Your task to perform on an android device: open a bookmark in the chrome app Image 0: 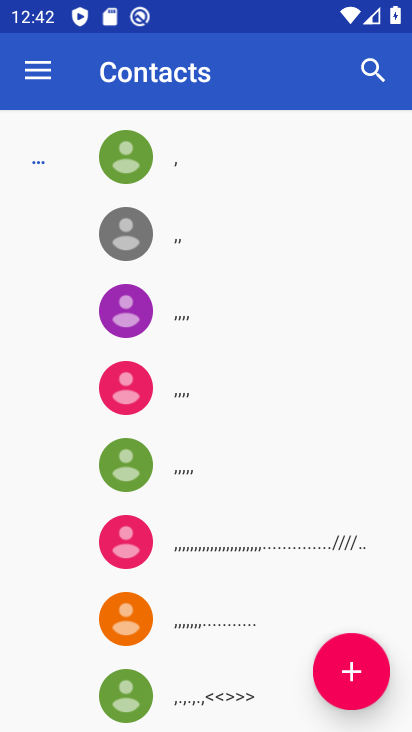
Step 0: press home button
Your task to perform on an android device: open a bookmark in the chrome app Image 1: 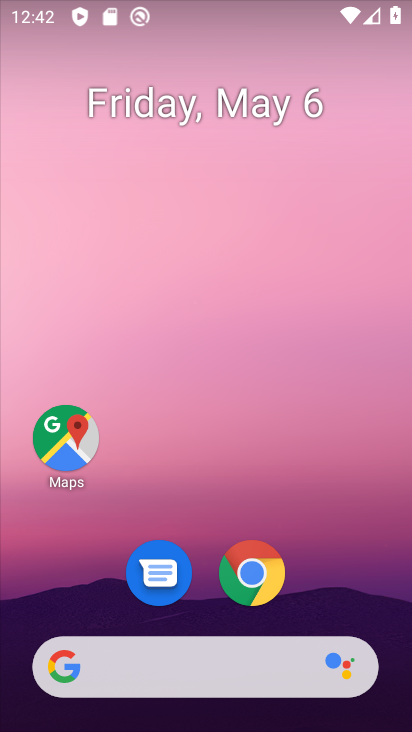
Step 1: drag from (201, 634) to (342, 183)
Your task to perform on an android device: open a bookmark in the chrome app Image 2: 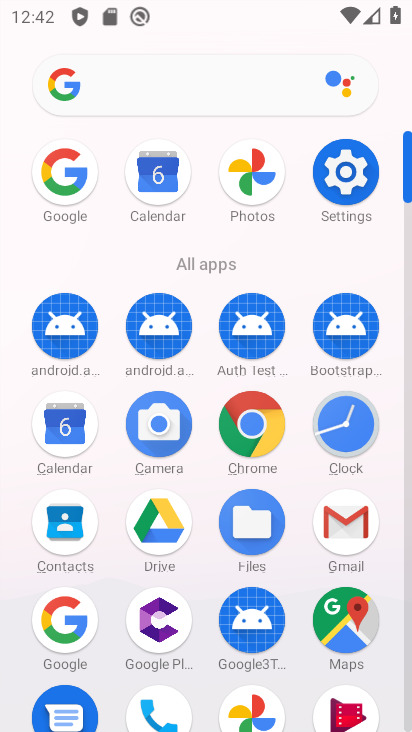
Step 2: click (266, 429)
Your task to perform on an android device: open a bookmark in the chrome app Image 3: 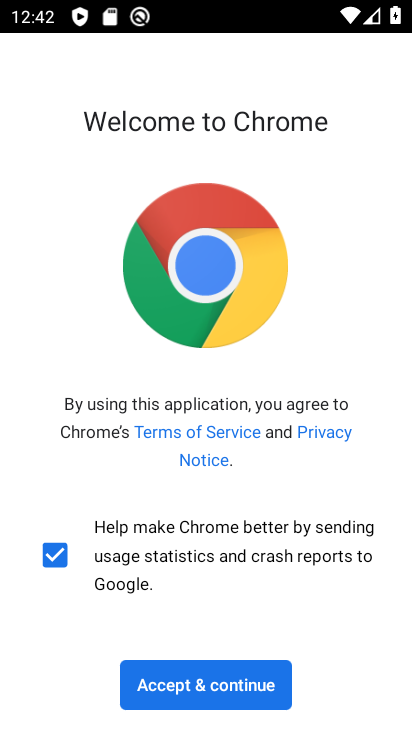
Step 3: click (217, 684)
Your task to perform on an android device: open a bookmark in the chrome app Image 4: 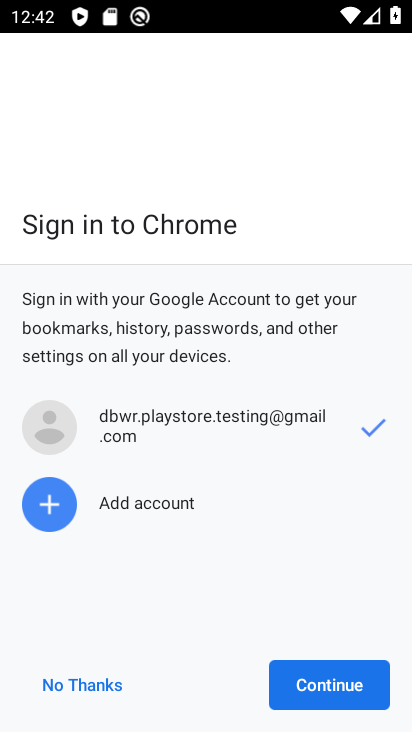
Step 4: click (353, 683)
Your task to perform on an android device: open a bookmark in the chrome app Image 5: 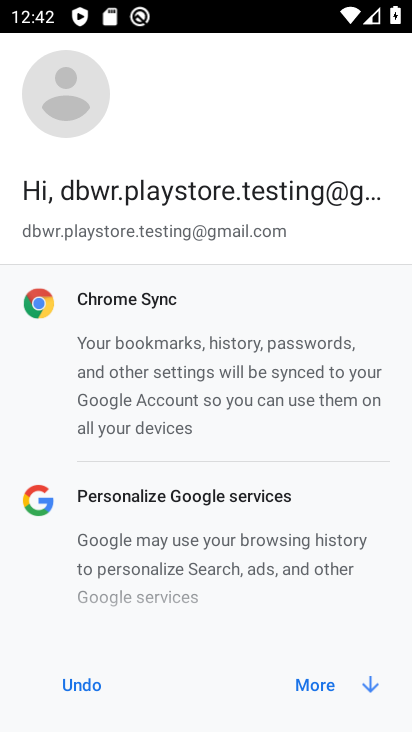
Step 5: click (300, 684)
Your task to perform on an android device: open a bookmark in the chrome app Image 6: 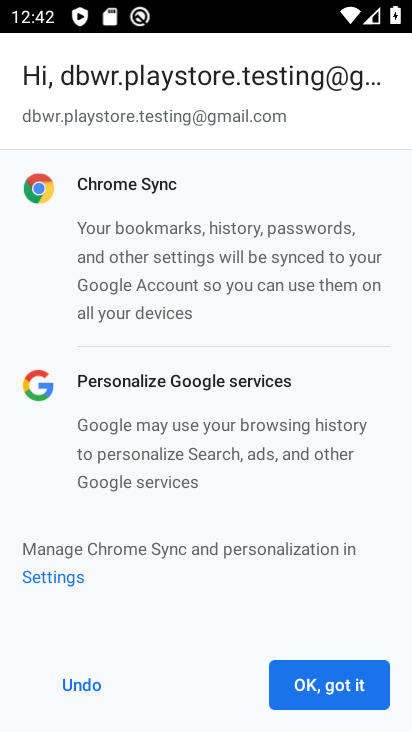
Step 6: click (318, 678)
Your task to perform on an android device: open a bookmark in the chrome app Image 7: 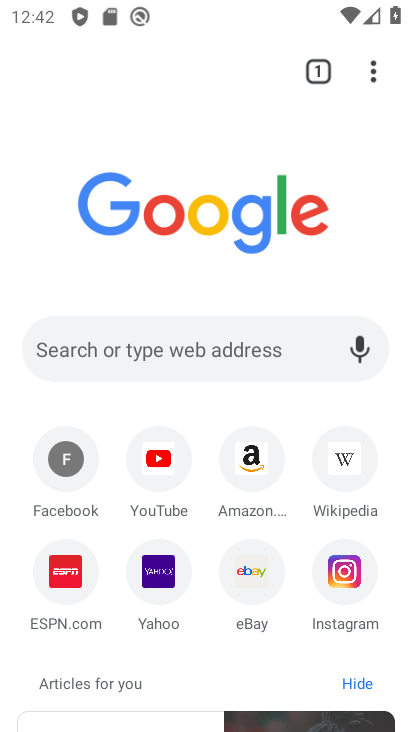
Step 7: drag from (370, 79) to (151, 275)
Your task to perform on an android device: open a bookmark in the chrome app Image 8: 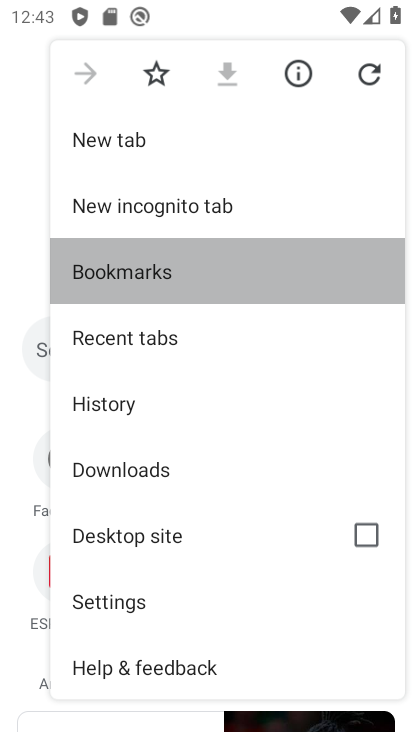
Step 8: click (151, 275)
Your task to perform on an android device: open a bookmark in the chrome app Image 9: 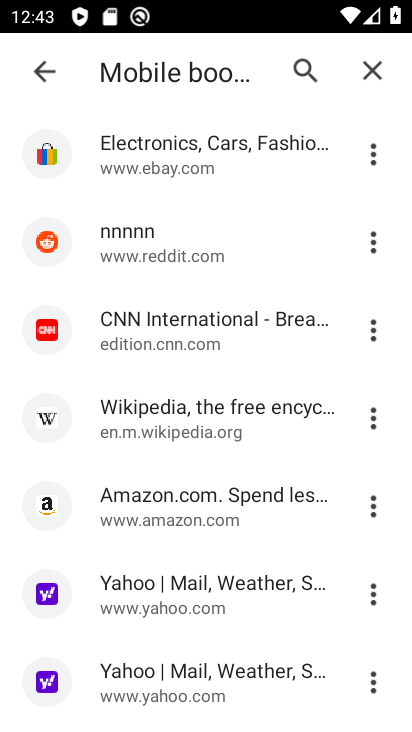
Step 9: task complete